Your task to perform on an android device: delete browsing data in the chrome app Image 0: 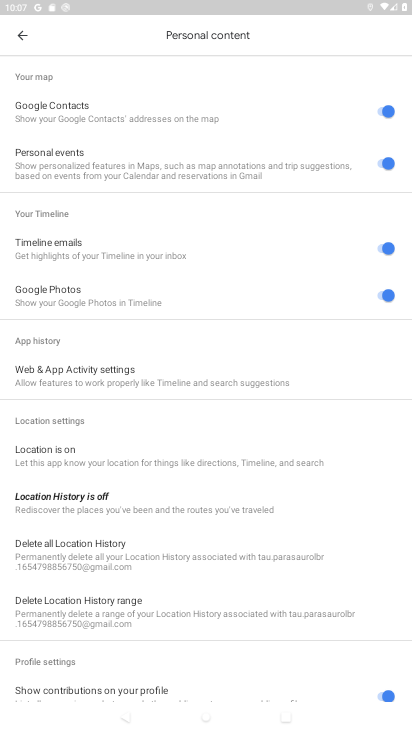
Step 0: press home button
Your task to perform on an android device: delete browsing data in the chrome app Image 1: 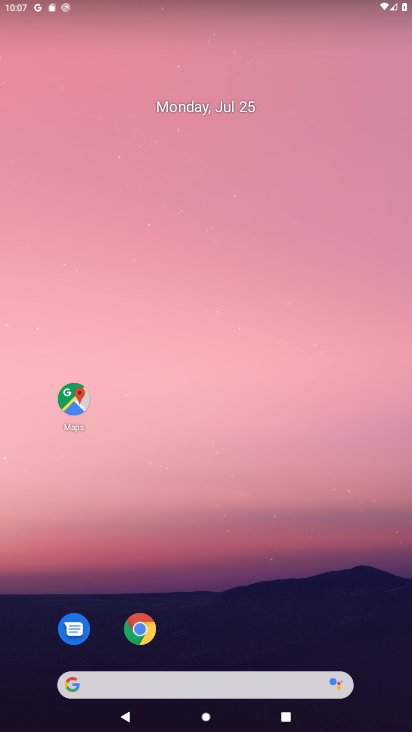
Step 1: click (147, 625)
Your task to perform on an android device: delete browsing data in the chrome app Image 2: 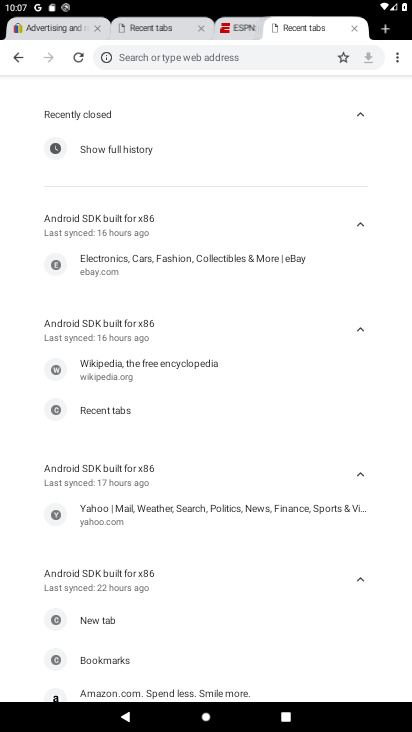
Step 2: click (403, 54)
Your task to perform on an android device: delete browsing data in the chrome app Image 3: 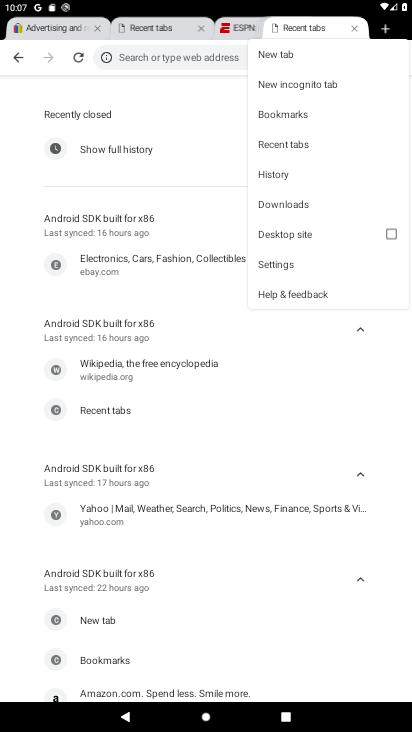
Step 3: click (278, 177)
Your task to perform on an android device: delete browsing data in the chrome app Image 4: 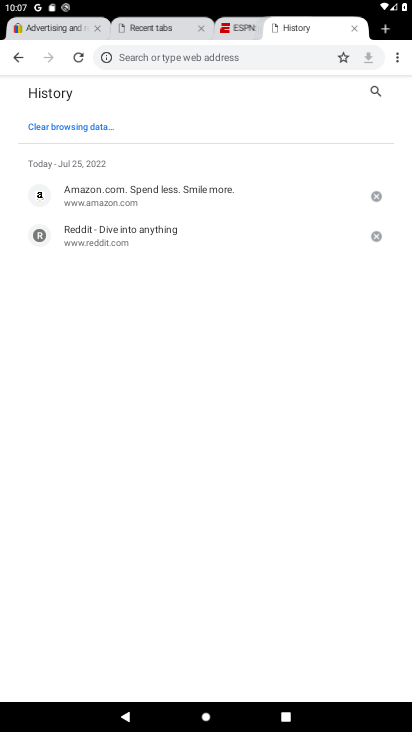
Step 4: click (86, 127)
Your task to perform on an android device: delete browsing data in the chrome app Image 5: 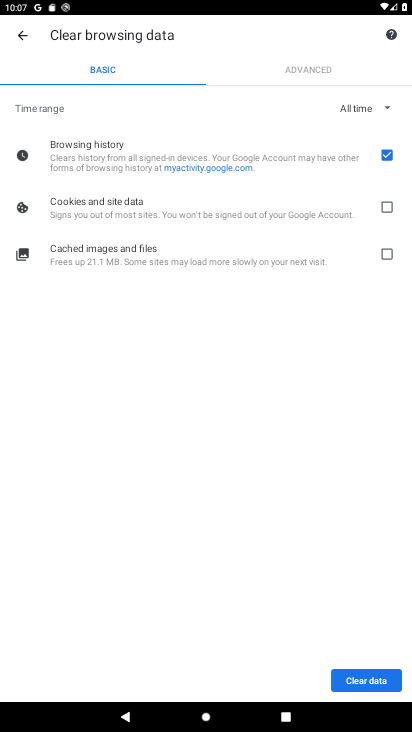
Step 5: click (356, 689)
Your task to perform on an android device: delete browsing data in the chrome app Image 6: 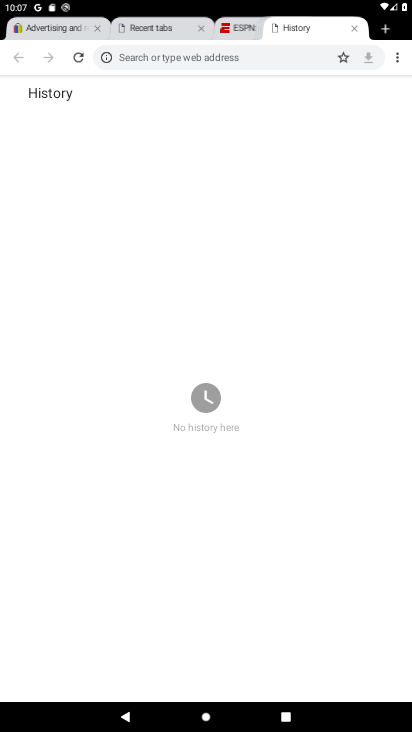
Step 6: task complete